Your task to perform on an android device: see creations saved in the google photos Image 0: 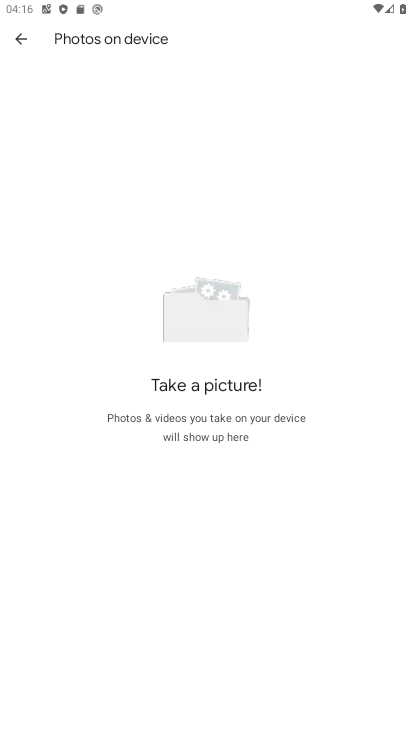
Step 0: click (15, 40)
Your task to perform on an android device: see creations saved in the google photos Image 1: 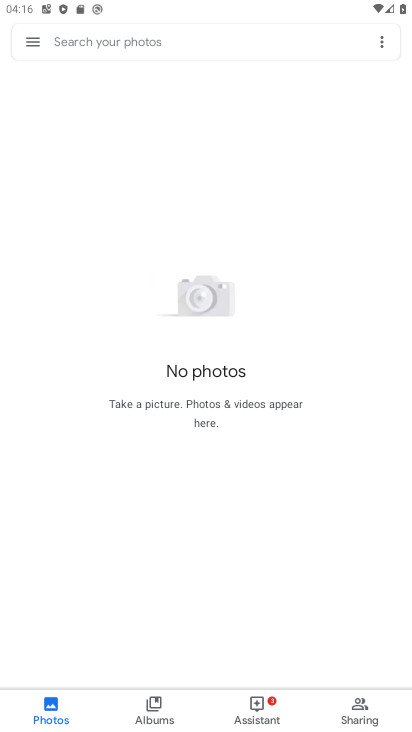
Step 1: click (86, 41)
Your task to perform on an android device: see creations saved in the google photos Image 2: 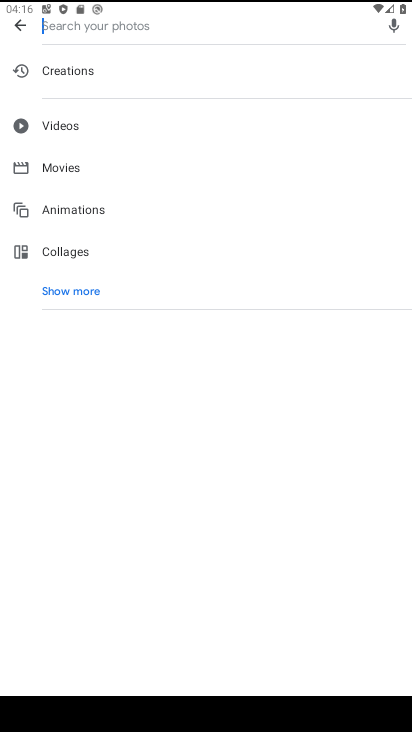
Step 2: click (74, 77)
Your task to perform on an android device: see creations saved in the google photos Image 3: 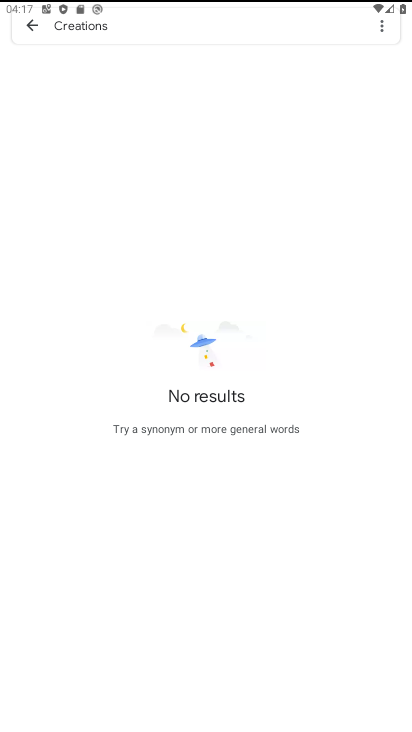
Step 3: task complete